Your task to perform on an android device: toggle show notifications on the lock screen Image 0: 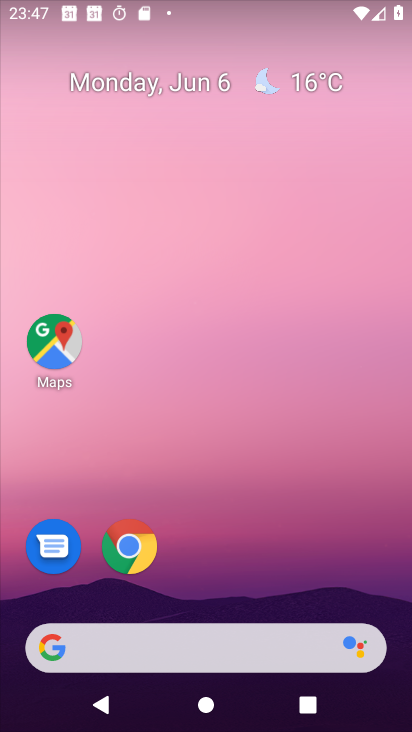
Step 0: drag from (206, 595) to (304, 180)
Your task to perform on an android device: toggle show notifications on the lock screen Image 1: 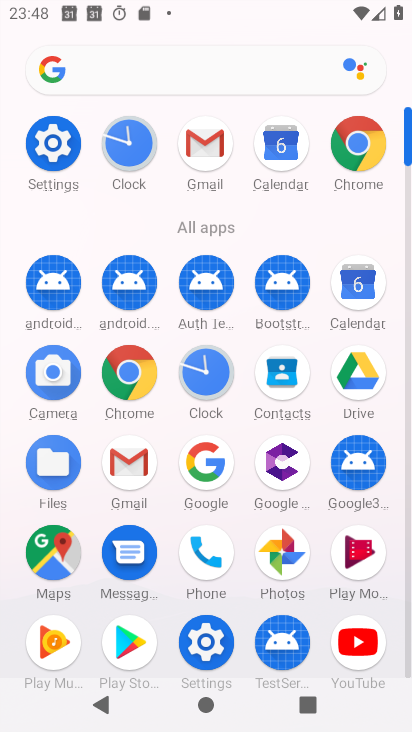
Step 1: click (56, 161)
Your task to perform on an android device: toggle show notifications on the lock screen Image 2: 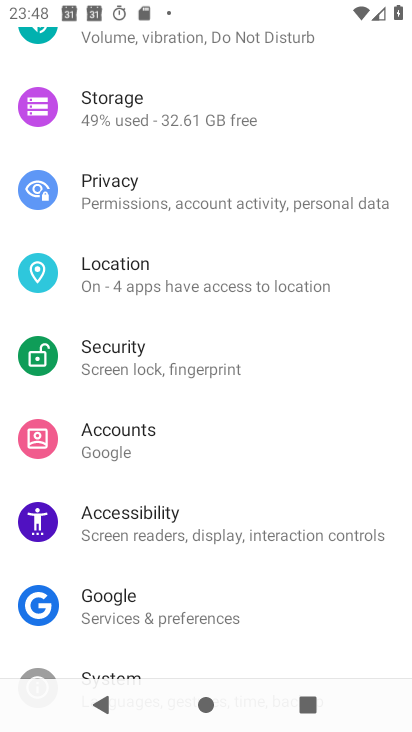
Step 2: drag from (179, 264) to (181, 567)
Your task to perform on an android device: toggle show notifications on the lock screen Image 3: 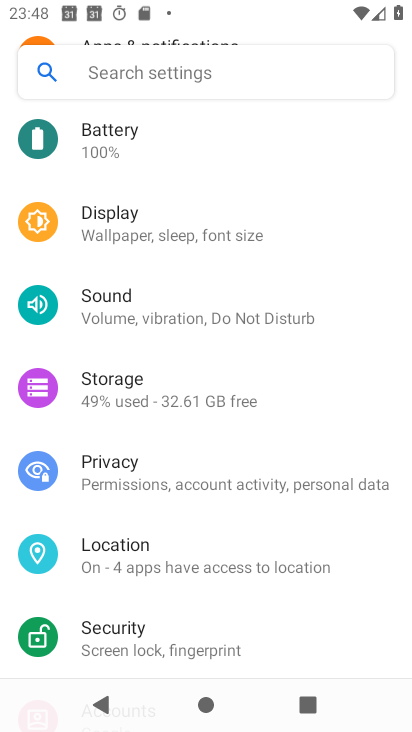
Step 3: drag from (187, 267) to (219, 649)
Your task to perform on an android device: toggle show notifications on the lock screen Image 4: 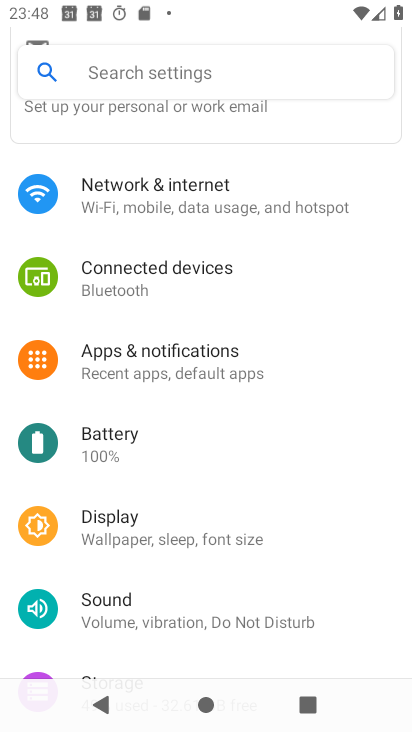
Step 4: click (198, 369)
Your task to perform on an android device: toggle show notifications on the lock screen Image 5: 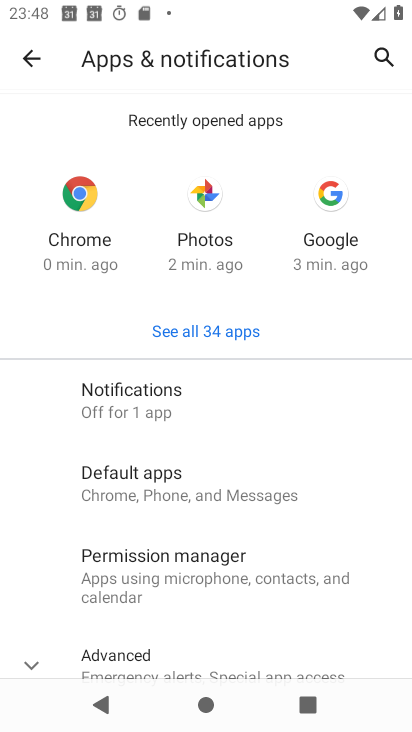
Step 5: click (166, 407)
Your task to perform on an android device: toggle show notifications on the lock screen Image 6: 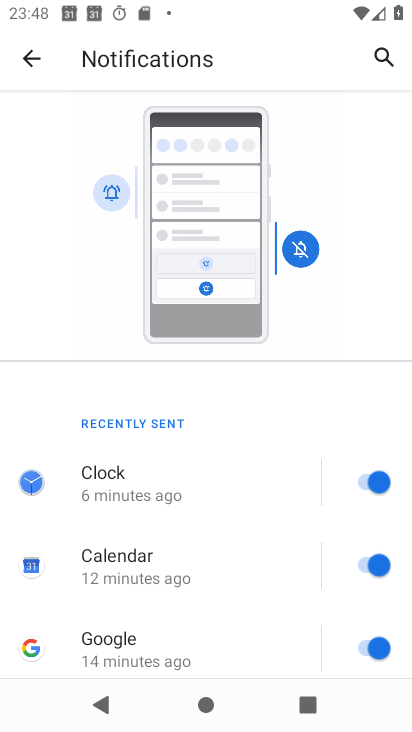
Step 6: drag from (197, 508) to (223, 377)
Your task to perform on an android device: toggle show notifications on the lock screen Image 7: 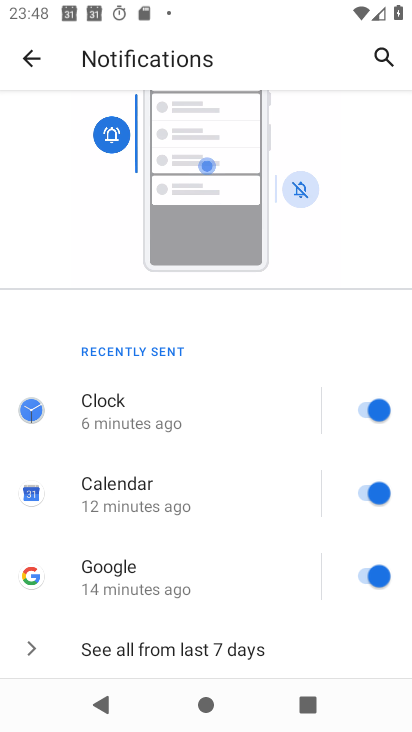
Step 7: drag from (218, 601) to (240, 361)
Your task to perform on an android device: toggle show notifications on the lock screen Image 8: 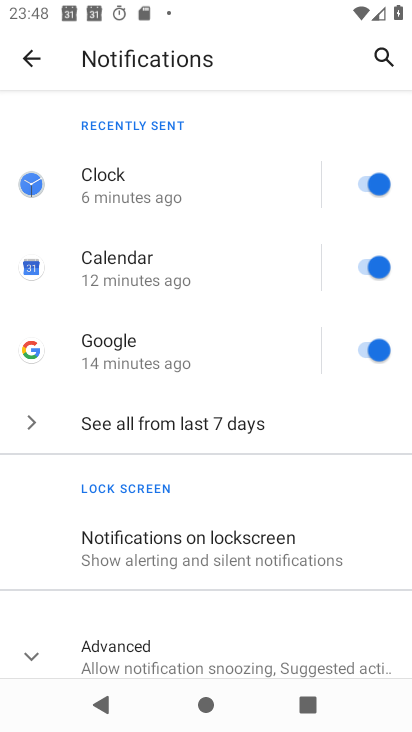
Step 8: drag from (176, 601) to (199, 354)
Your task to perform on an android device: toggle show notifications on the lock screen Image 9: 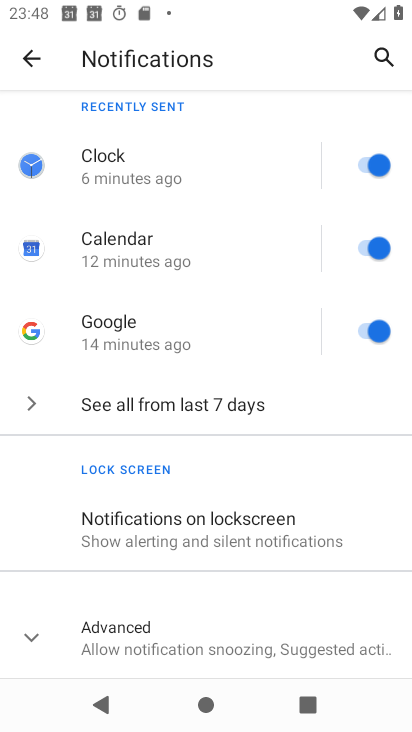
Step 9: click (143, 534)
Your task to perform on an android device: toggle show notifications on the lock screen Image 10: 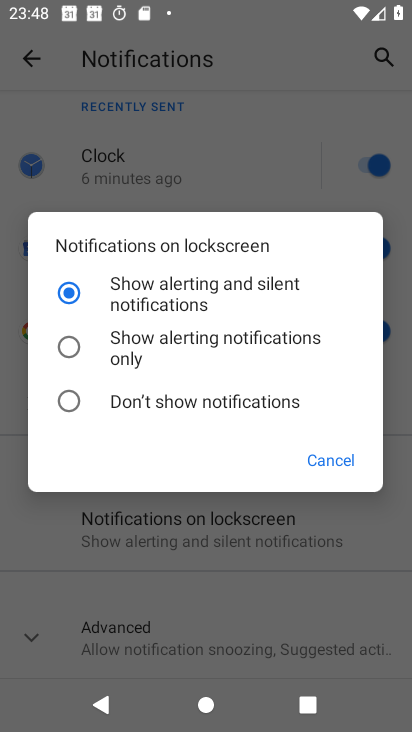
Step 10: click (117, 401)
Your task to perform on an android device: toggle show notifications on the lock screen Image 11: 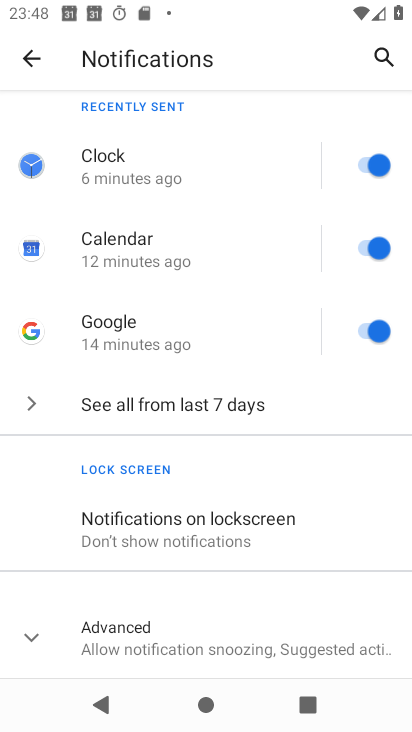
Step 11: task complete